Your task to perform on an android device: What's on the menu at McDonalds? Image 0: 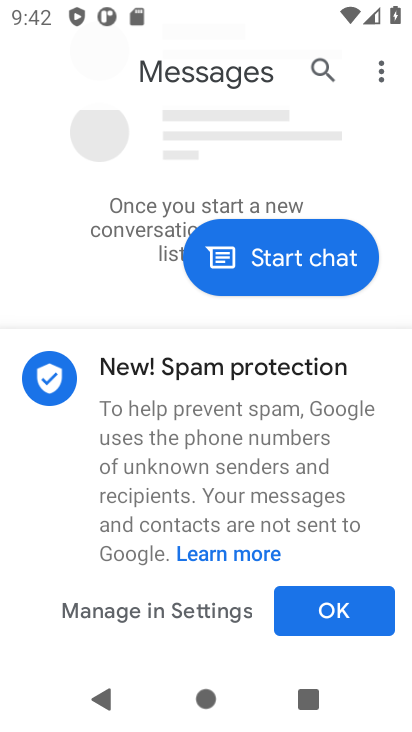
Step 0: press home button
Your task to perform on an android device: What's on the menu at McDonalds? Image 1: 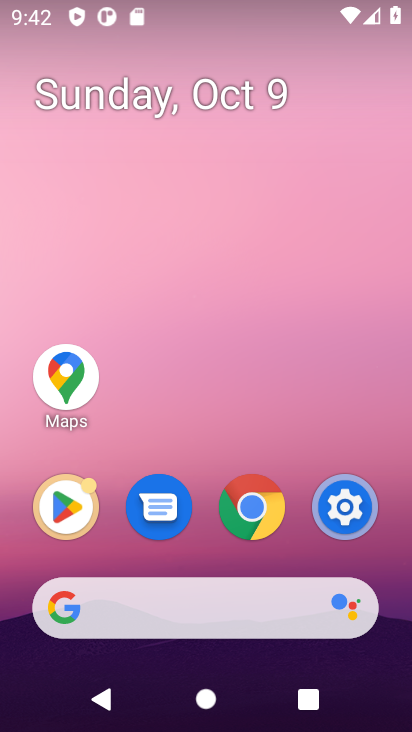
Step 1: drag from (207, 548) to (199, 94)
Your task to perform on an android device: What's on the menu at McDonalds? Image 2: 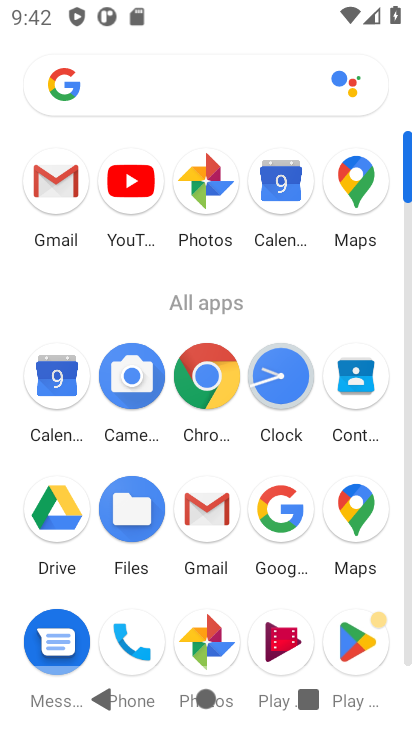
Step 2: click (211, 377)
Your task to perform on an android device: What's on the menu at McDonalds? Image 3: 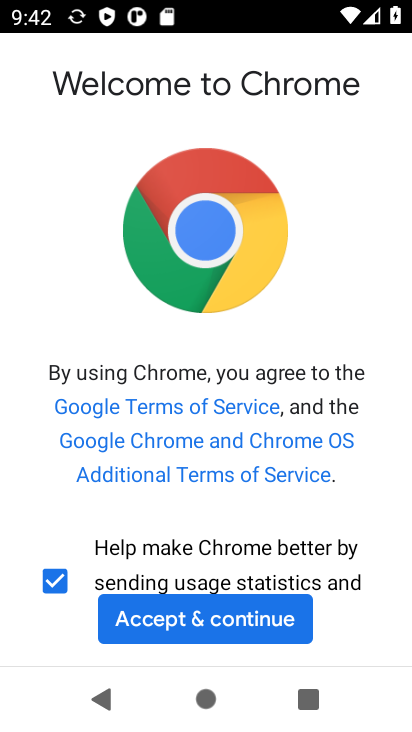
Step 3: click (271, 628)
Your task to perform on an android device: What's on the menu at McDonalds? Image 4: 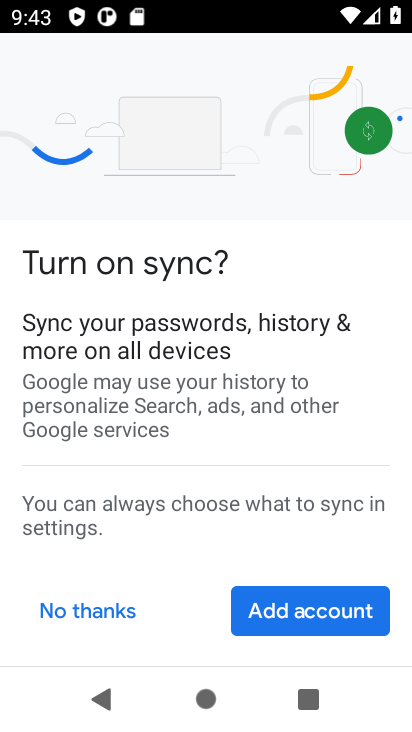
Step 4: click (68, 617)
Your task to perform on an android device: What's on the menu at McDonalds? Image 5: 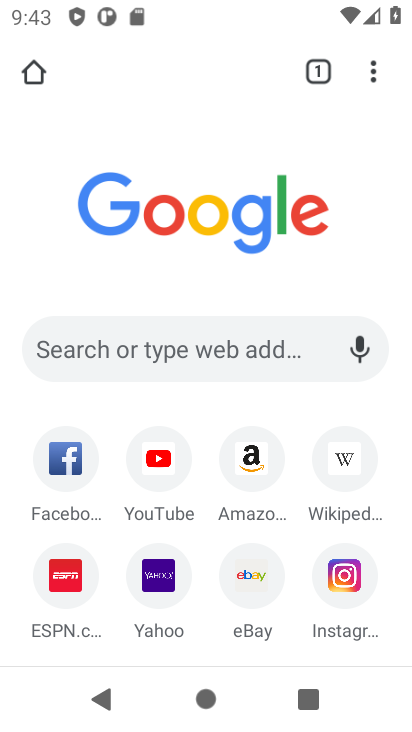
Step 5: click (164, 350)
Your task to perform on an android device: What's on the menu at McDonalds? Image 6: 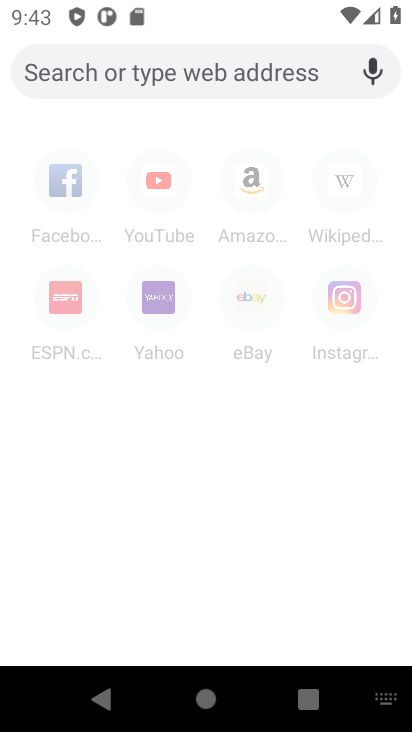
Step 6: type "menu at McDonalds"
Your task to perform on an android device: What's on the menu at McDonalds? Image 7: 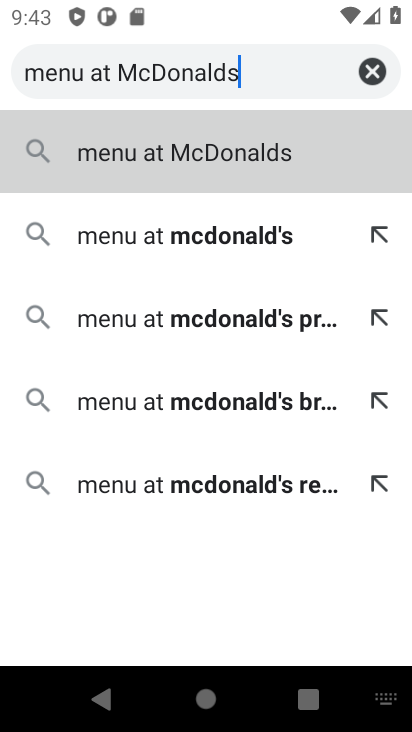
Step 7: click (194, 139)
Your task to perform on an android device: What's on the menu at McDonalds? Image 8: 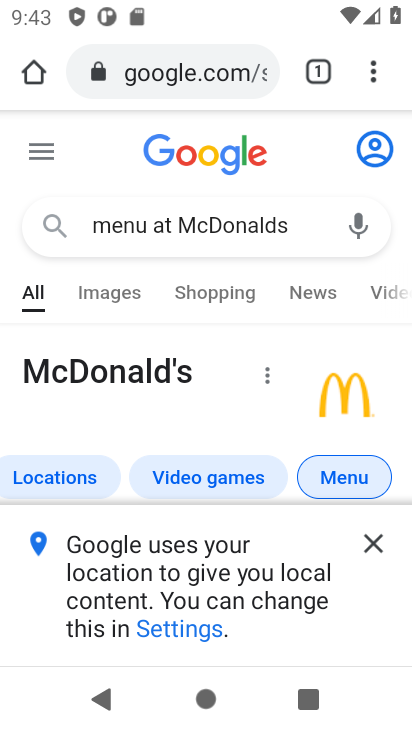
Step 8: drag from (193, 393) to (173, 57)
Your task to perform on an android device: What's on the menu at McDonalds? Image 9: 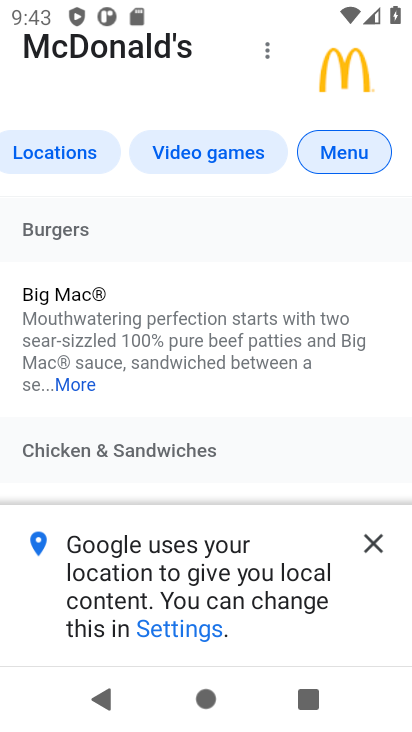
Step 9: drag from (190, 370) to (185, 96)
Your task to perform on an android device: What's on the menu at McDonalds? Image 10: 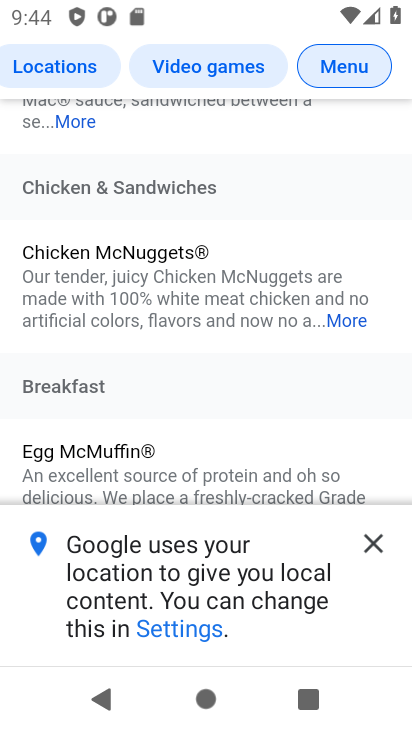
Step 10: drag from (202, 376) to (213, 323)
Your task to perform on an android device: What's on the menu at McDonalds? Image 11: 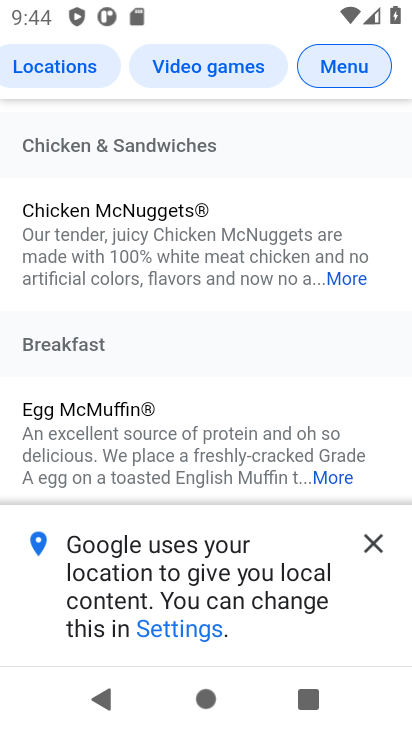
Step 11: drag from (253, 335) to (236, 102)
Your task to perform on an android device: What's on the menu at McDonalds? Image 12: 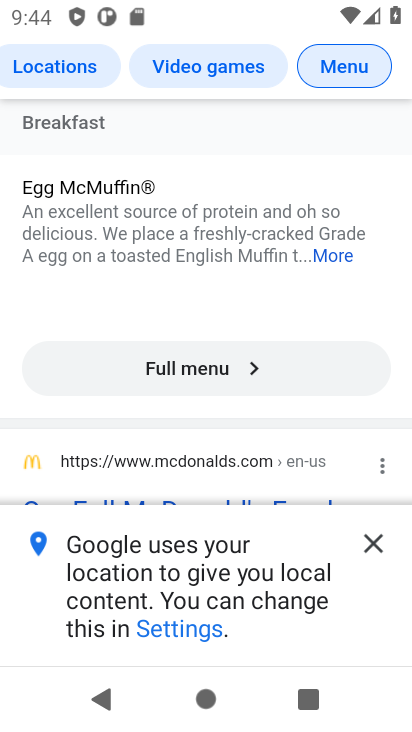
Step 12: click (219, 183)
Your task to perform on an android device: What's on the menu at McDonalds? Image 13: 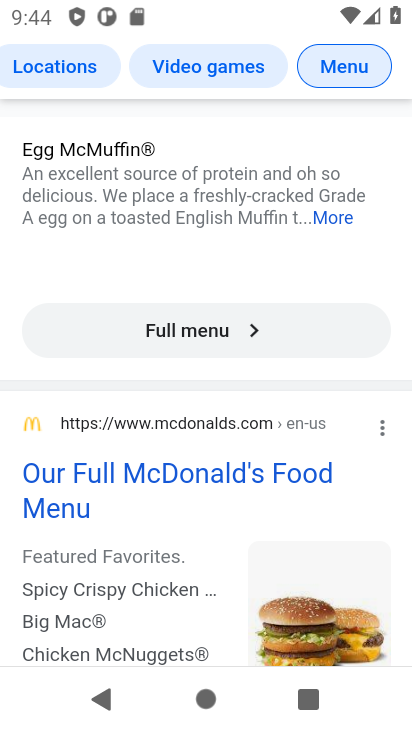
Step 13: click (230, 328)
Your task to perform on an android device: What's on the menu at McDonalds? Image 14: 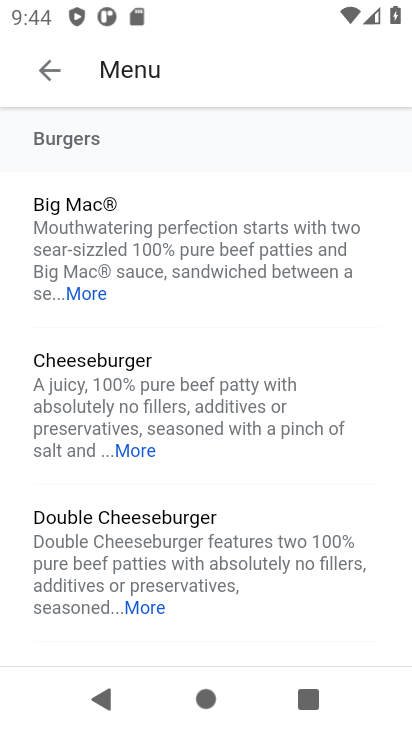
Step 14: task complete